Your task to perform on an android device: change the clock display to digital Image 0: 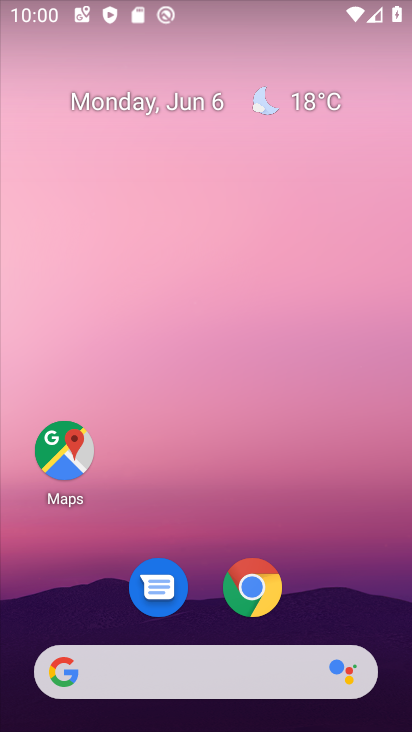
Step 0: drag from (351, 571) to (233, 126)
Your task to perform on an android device: change the clock display to digital Image 1: 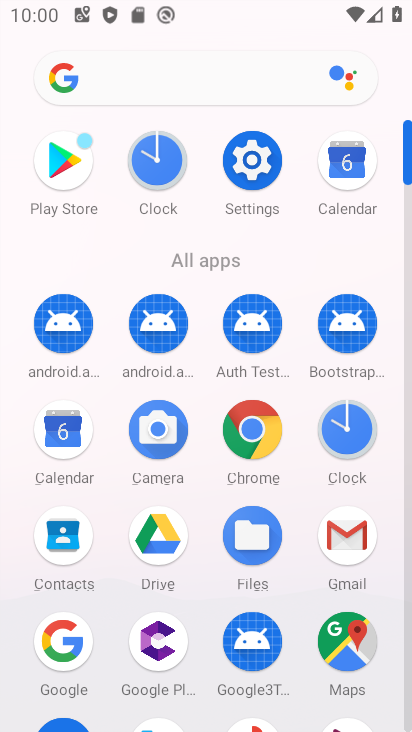
Step 1: click (145, 158)
Your task to perform on an android device: change the clock display to digital Image 2: 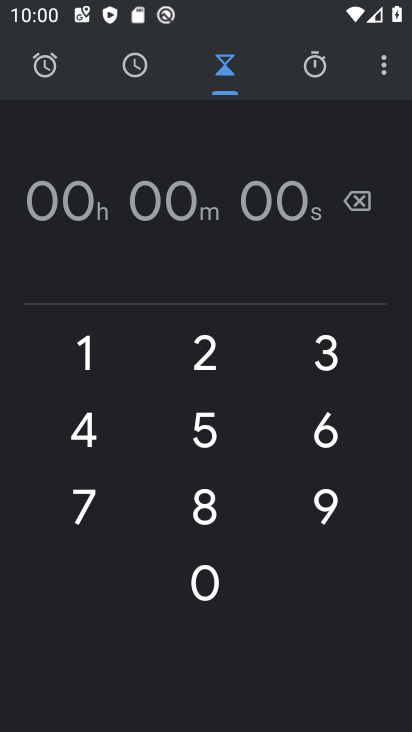
Step 2: click (366, 60)
Your task to perform on an android device: change the clock display to digital Image 3: 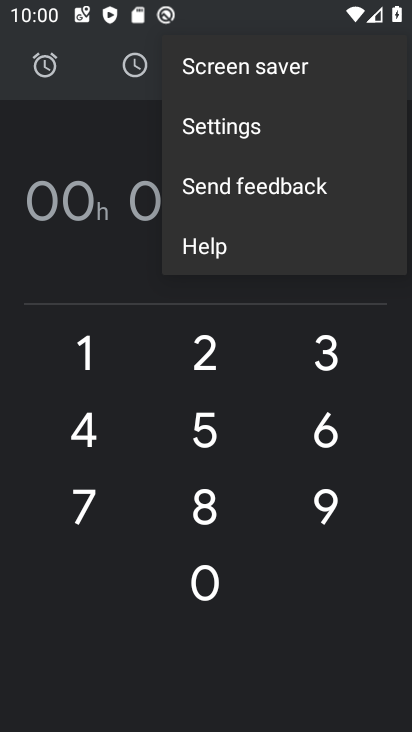
Step 3: click (292, 118)
Your task to perform on an android device: change the clock display to digital Image 4: 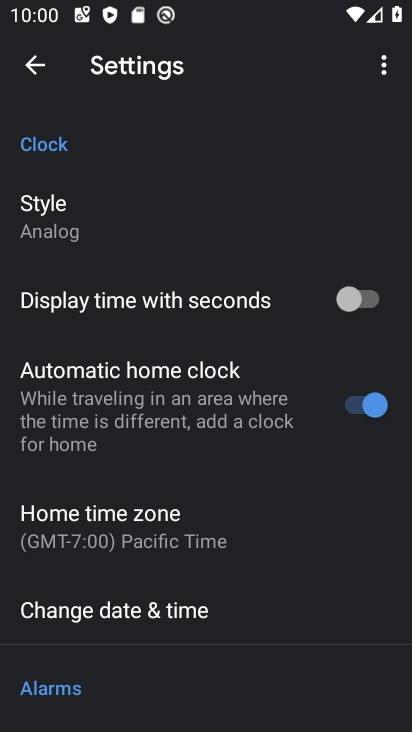
Step 4: click (164, 216)
Your task to perform on an android device: change the clock display to digital Image 5: 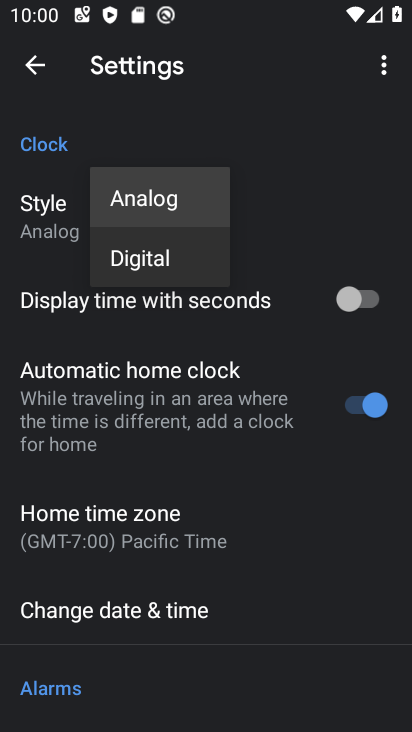
Step 5: click (180, 251)
Your task to perform on an android device: change the clock display to digital Image 6: 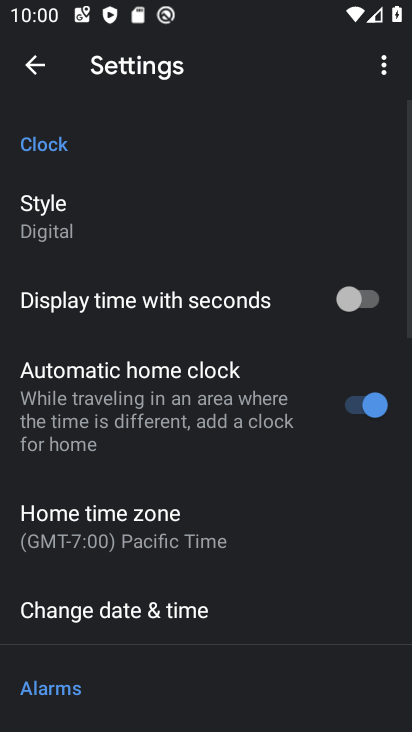
Step 6: task complete